Your task to perform on an android device: change the clock display to analog Image 0: 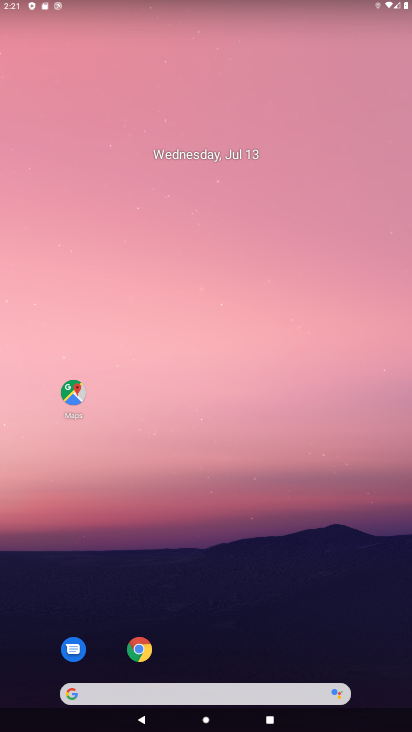
Step 0: drag from (240, 573) to (236, 144)
Your task to perform on an android device: change the clock display to analog Image 1: 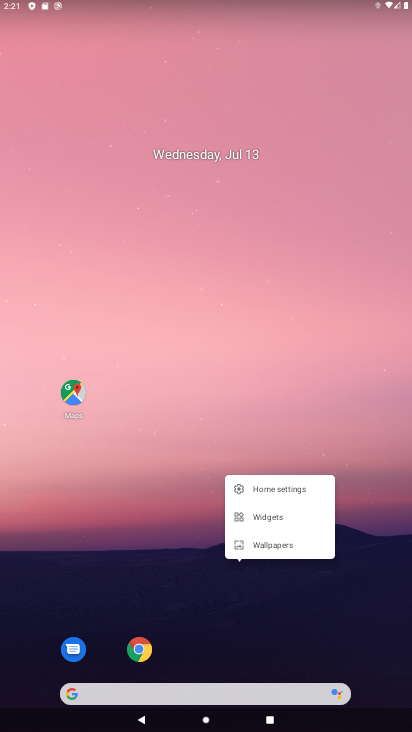
Step 1: click (143, 517)
Your task to perform on an android device: change the clock display to analog Image 2: 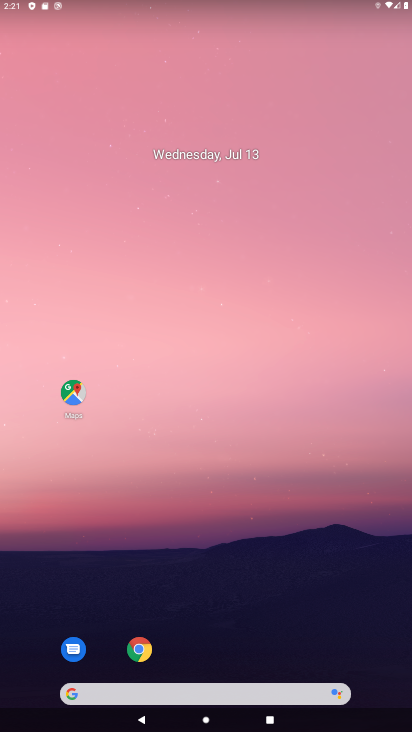
Step 2: drag from (202, 594) to (223, 141)
Your task to perform on an android device: change the clock display to analog Image 3: 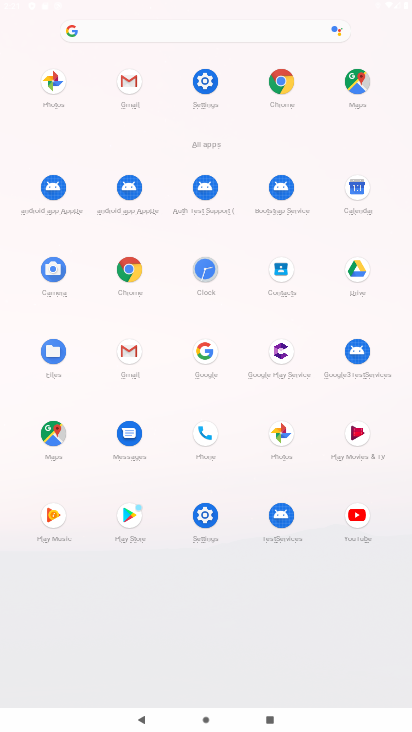
Step 3: click (204, 265)
Your task to perform on an android device: change the clock display to analog Image 4: 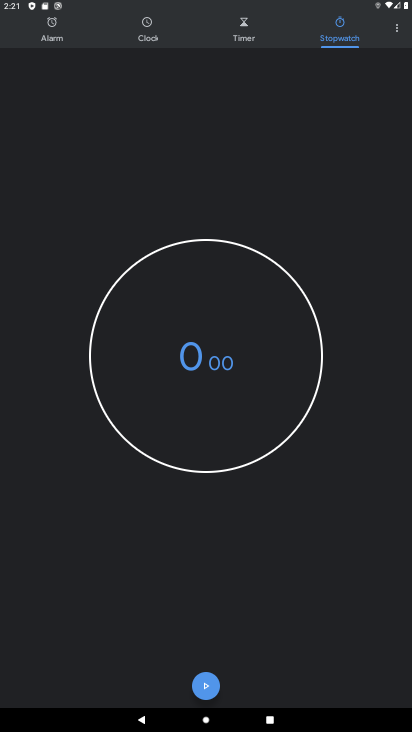
Step 4: click (397, 25)
Your task to perform on an android device: change the clock display to analog Image 5: 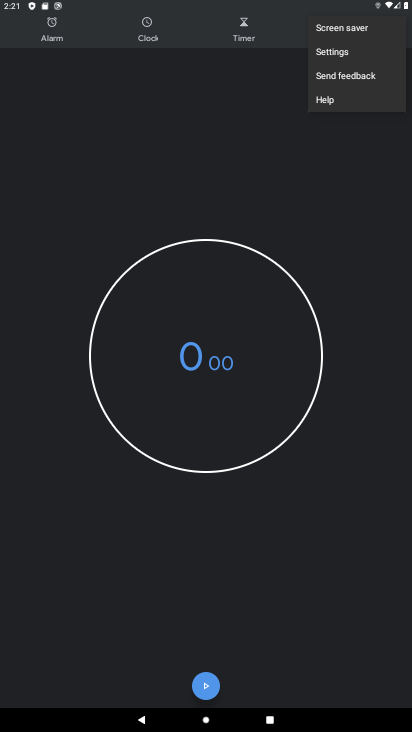
Step 5: click (343, 53)
Your task to perform on an android device: change the clock display to analog Image 6: 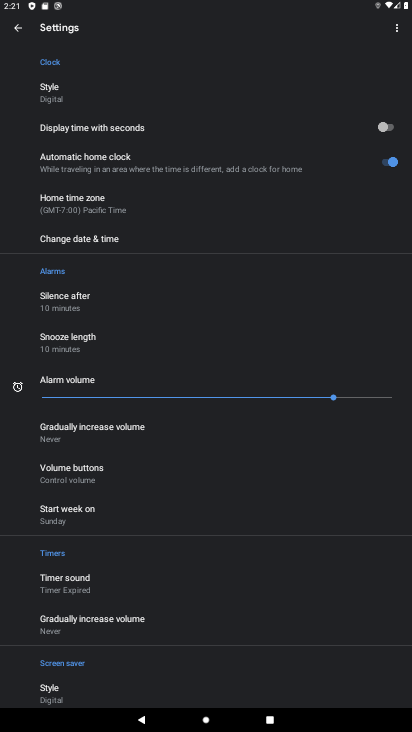
Step 6: click (55, 87)
Your task to perform on an android device: change the clock display to analog Image 7: 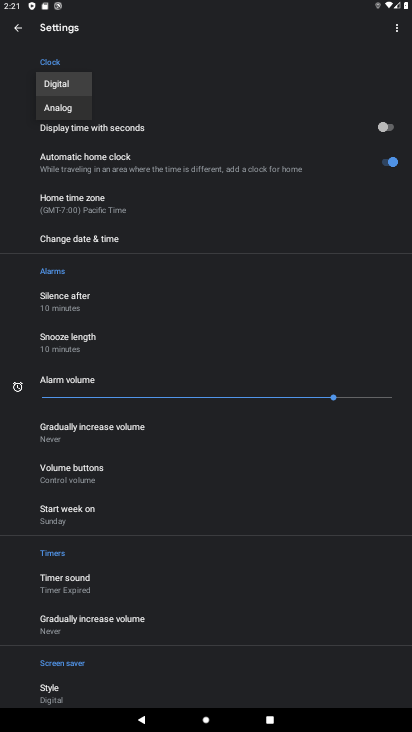
Step 7: click (58, 110)
Your task to perform on an android device: change the clock display to analog Image 8: 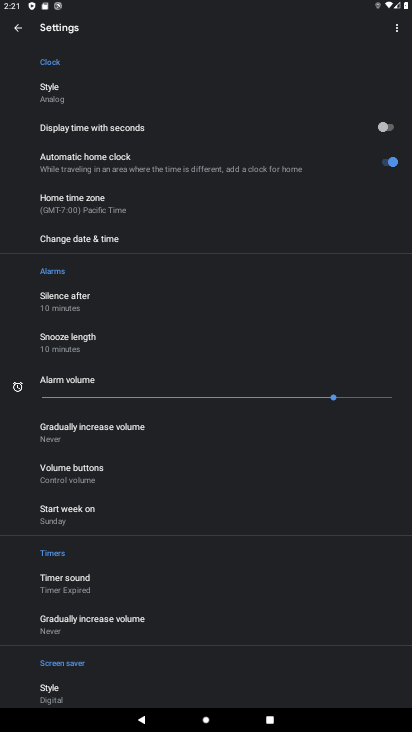
Step 8: task complete